Your task to perform on an android device: toggle priority inbox in the gmail app Image 0: 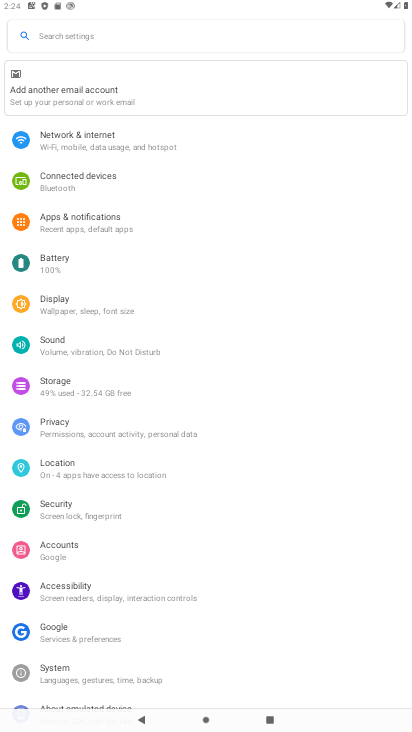
Step 0: task complete